Your task to perform on an android device: Open Google Chrome and click the shortcut for Amazon.com Image 0: 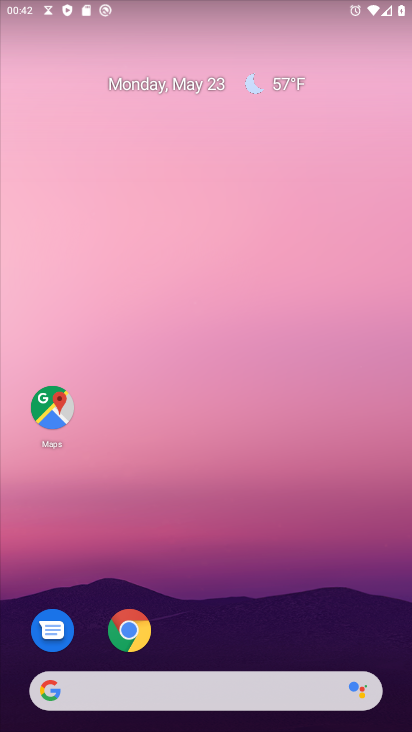
Step 0: click (145, 632)
Your task to perform on an android device: Open Google Chrome and click the shortcut for Amazon.com Image 1: 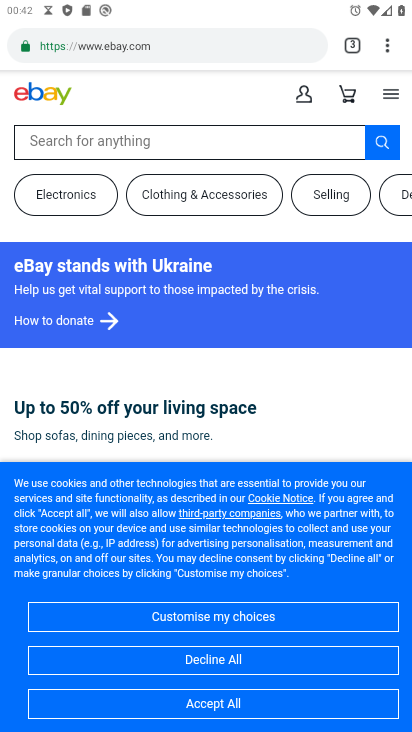
Step 1: click (352, 43)
Your task to perform on an android device: Open Google Chrome and click the shortcut for Amazon.com Image 2: 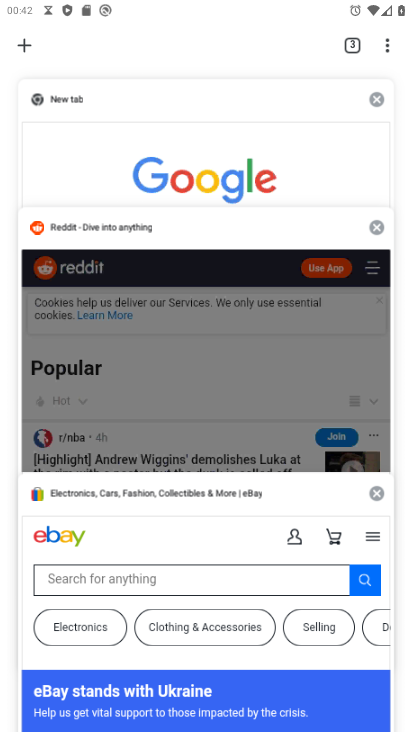
Step 2: click (28, 45)
Your task to perform on an android device: Open Google Chrome and click the shortcut for Amazon.com Image 3: 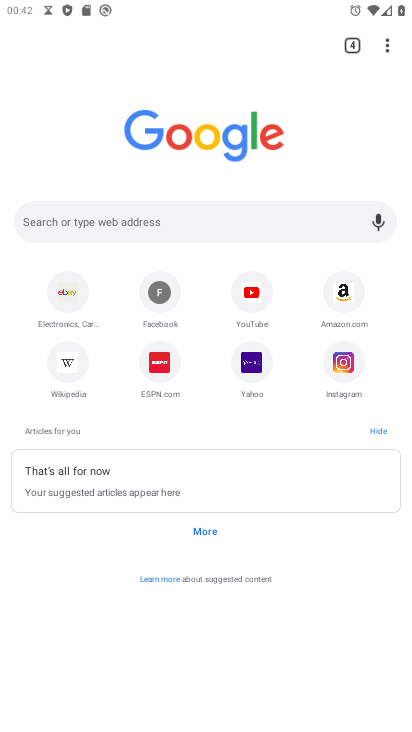
Step 3: click (348, 290)
Your task to perform on an android device: Open Google Chrome and click the shortcut for Amazon.com Image 4: 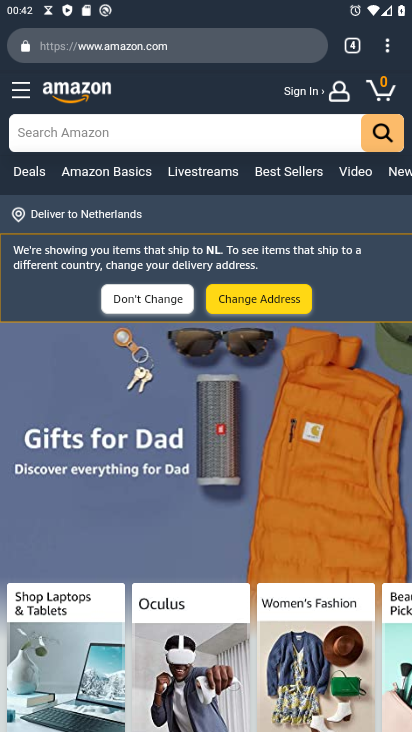
Step 4: task complete